Your task to perform on an android device: check data usage Image 0: 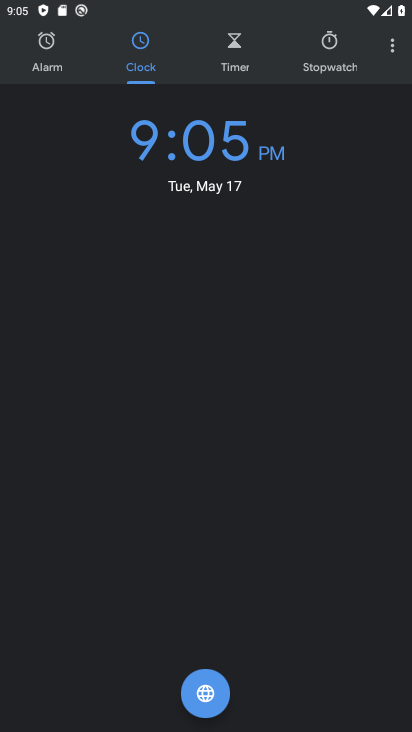
Step 0: press home button
Your task to perform on an android device: check data usage Image 1: 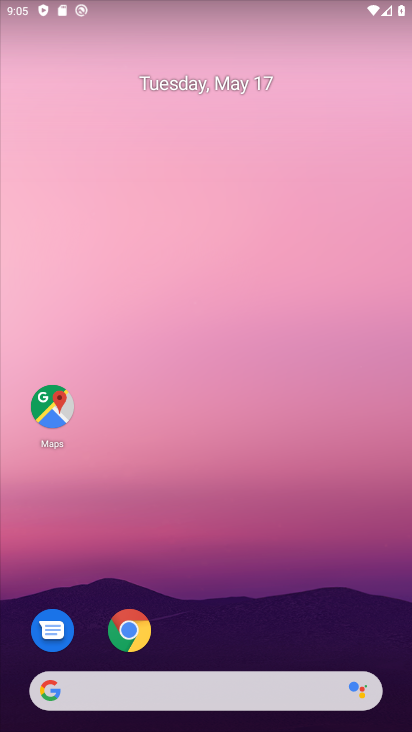
Step 1: drag from (290, 620) to (233, 114)
Your task to perform on an android device: check data usage Image 2: 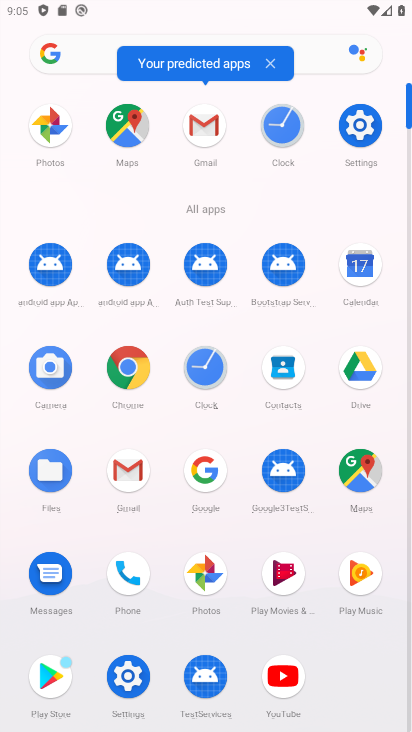
Step 2: click (363, 127)
Your task to perform on an android device: check data usage Image 3: 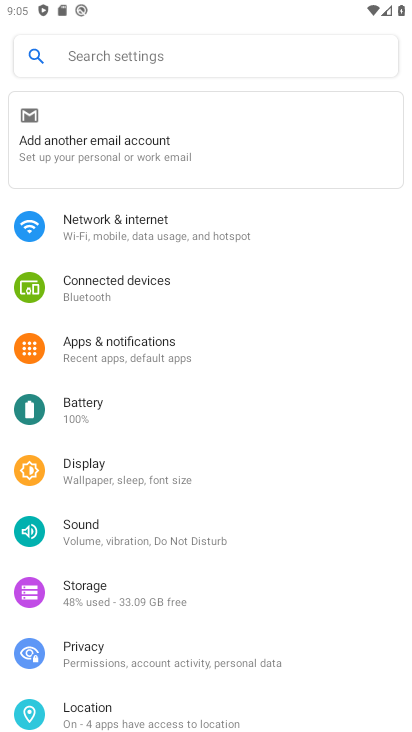
Step 3: click (135, 228)
Your task to perform on an android device: check data usage Image 4: 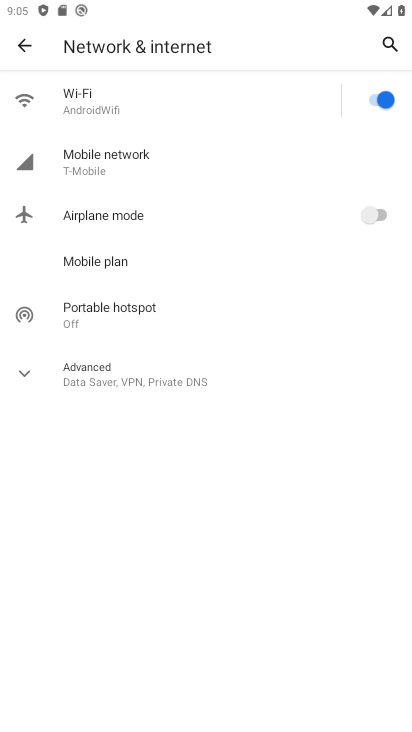
Step 4: click (115, 172)
Your task to perform on an android device: check data usage Image 5: 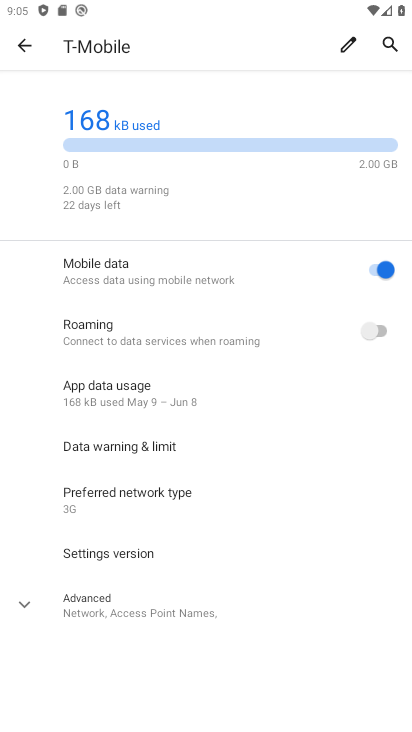
Step 5: click (129, 385)
Your task to perform on an android device: check data usage Image 6: 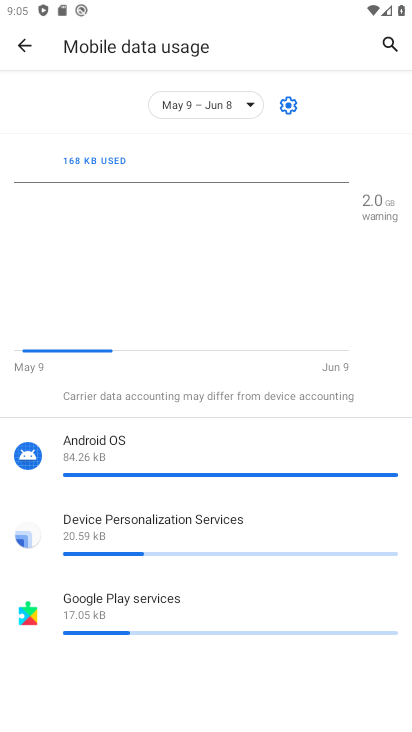
Step 6: task complete